Your task to perform on an android device: change alarm snooze length Image 0: 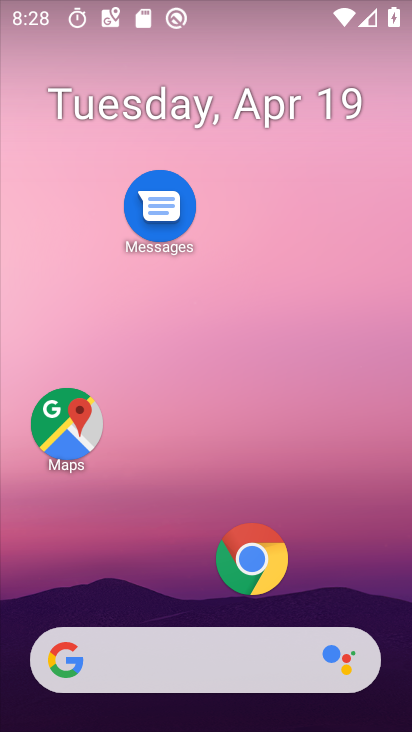
Step 0: drag from (244, 634) to (156, 311)
Your task to perform on an android device: change alarm snooze length Image 1: 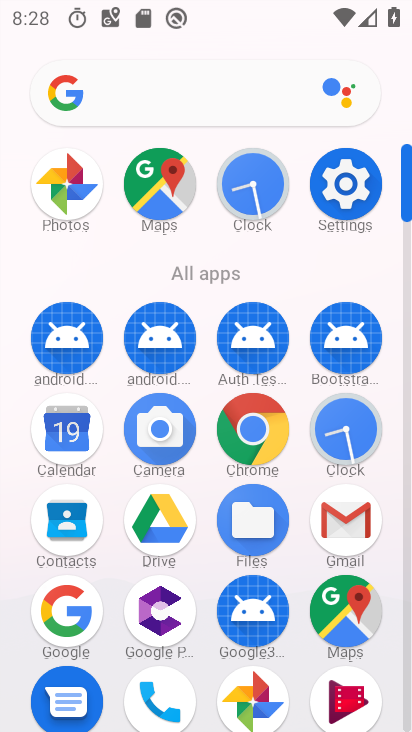
Step 1: click (187, 647)
Your task to perform on an android device: change alarm snooze length Image 2: 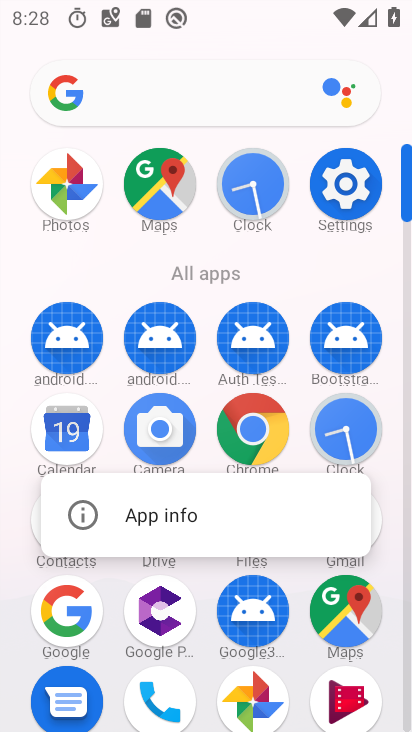
Step 2: click (348, 420)
Your task to perform on an android device: change alarm snooze length Image 3: 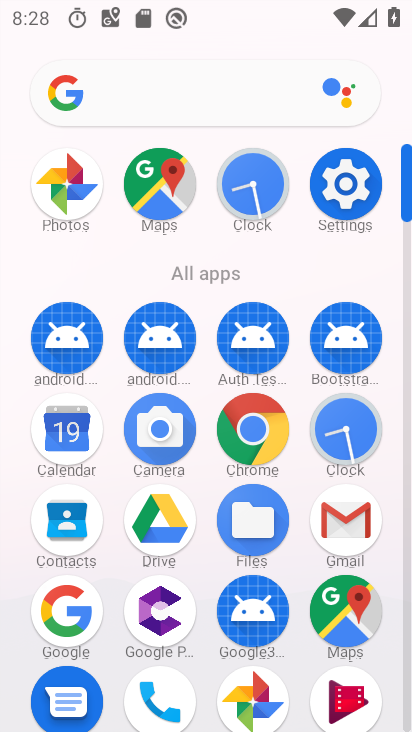
Step 3: click (329, 444)
Your task to perform on an android device: change alarm snooze length Image 4: 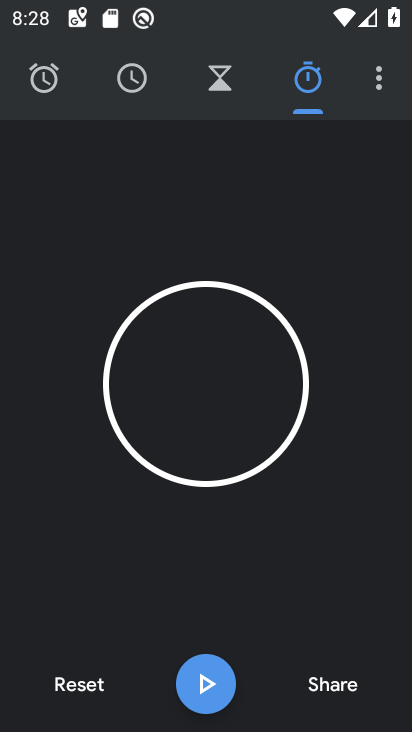
Step 4: click (382, 74)
Your task to perform on an android device: change alarm snooze length Image 5: 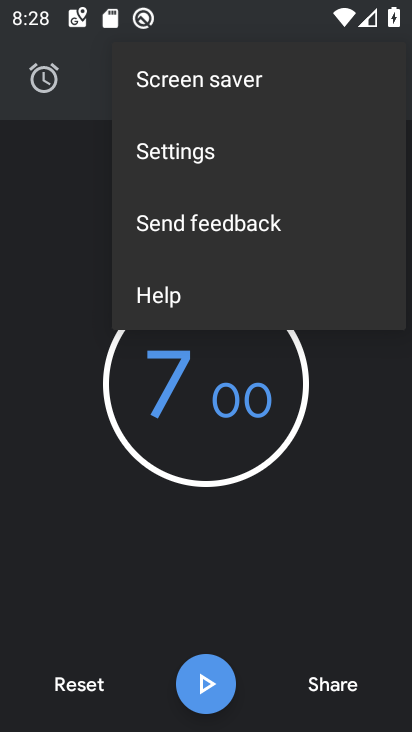
Step 5: click (190, 156)
Your task to perform on an android device: change alarm snooze length Image 6: 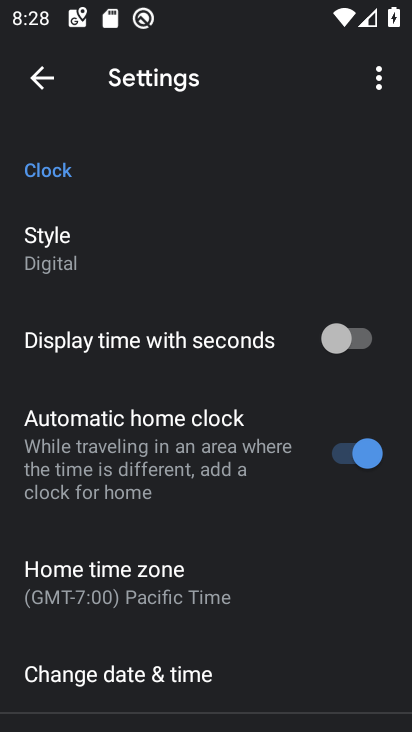
Step 6: drag from (115, 601) to (117, 190)
Your task to perform on an android device: change alarm snooze length Image 7: 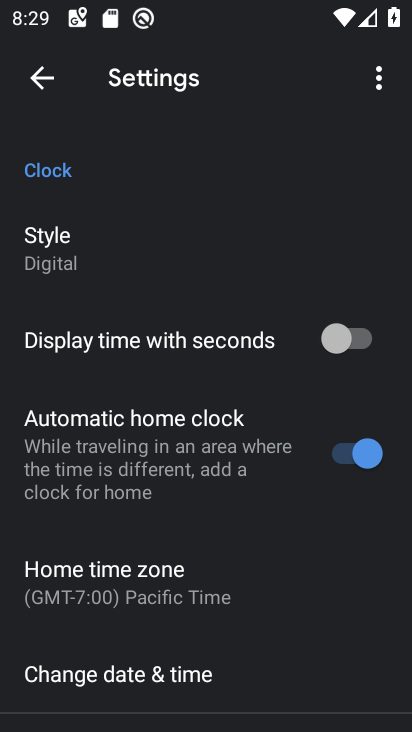
Step 7: drag from (180, 639) to (167, 264)
Your task to perform on an android device: change alarm snooze length Image 8: 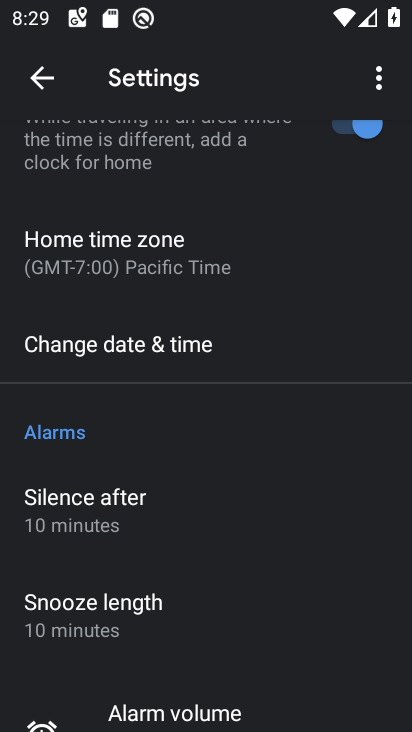
Step 8: click (105, 613)
Your task to perform on an android device: change alarm snooze length Image 9: 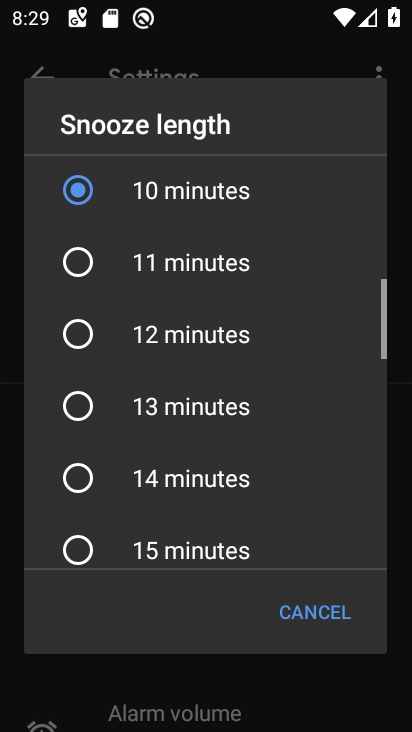
Step 9: click (73, 487)
Your task to perform on an android device: change alarm snooze length Image 10: 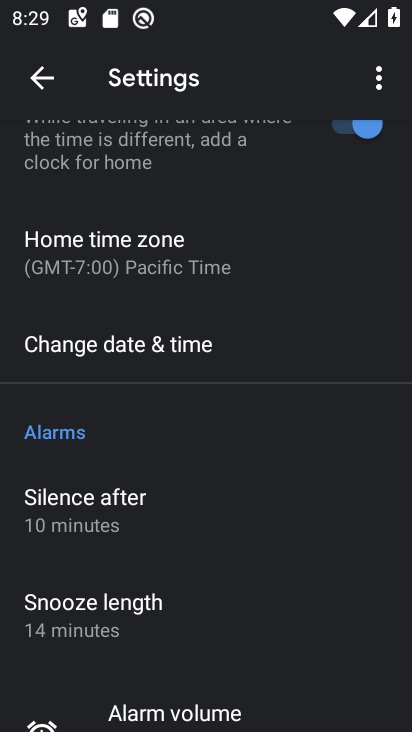
Step 10: task complete